Your task to perform on an android device: toggle sleep mode Image 0: 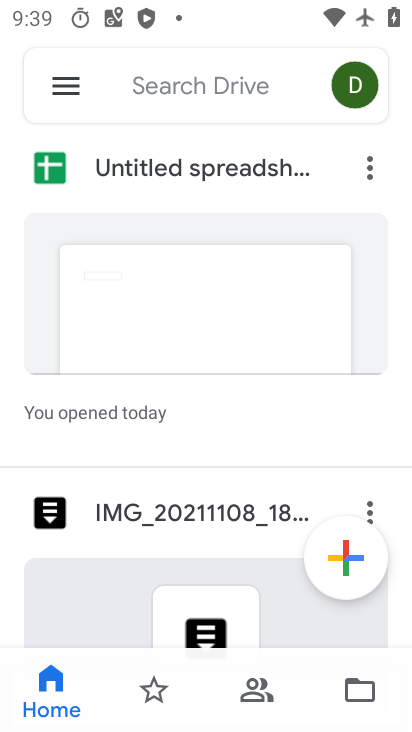
Step 0: press home button
Your task to perform on an android device: toggle sleep mode Image 1: 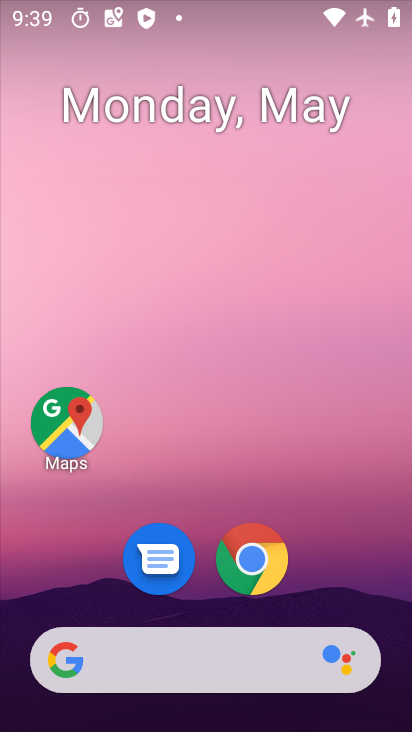
Step 1: drag from (330, 584) to (285, 165)
Your task to perform on an android device: toggle sleep mode Image 2: 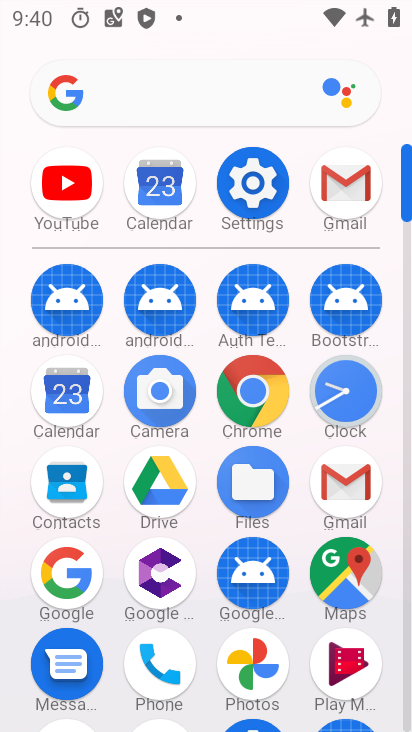
Step 2: click (264, 190)
Your task to perform on an android device: toggle sleep mode Image 3: 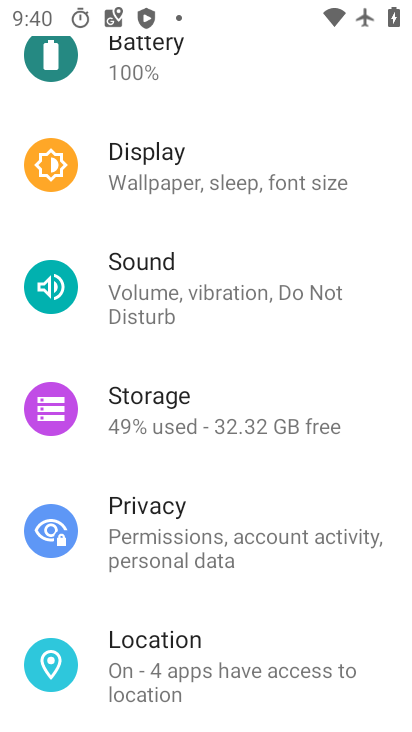
Step 3: click (239, 157)
Your task to perform on an android device: toggle sleep mode Image 4: 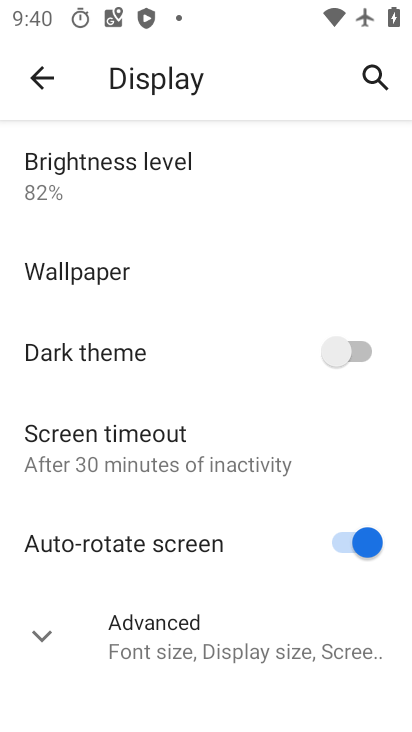
Step 4: click (183, 649)
Your task to perform on an android device: toggle sleep mode Image 5: 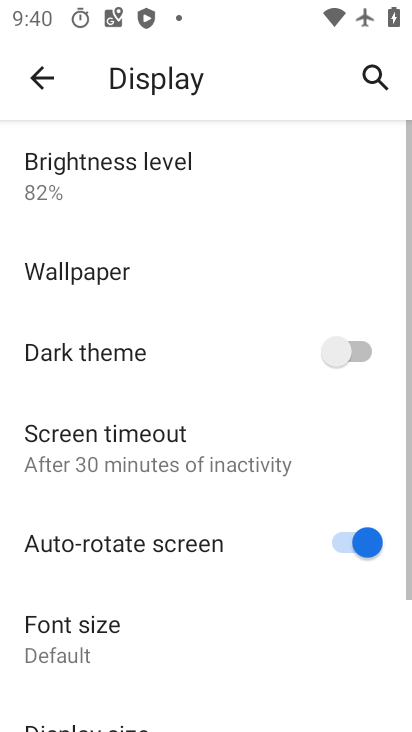
Step 5: drag from (187, 647) to (163, 297)
Your task to perform on an android device: toggle sleep mode Image 6: 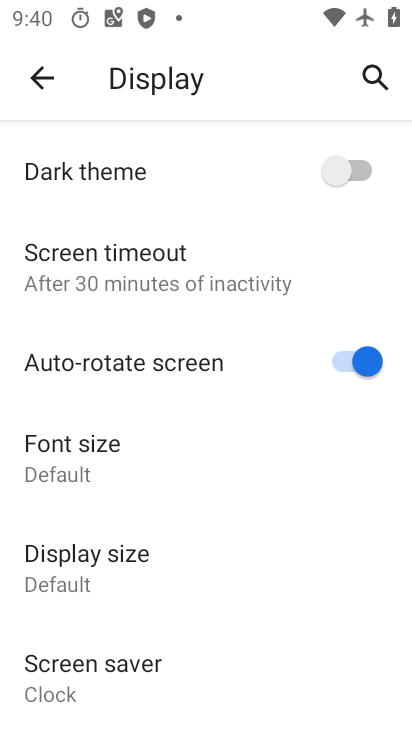
Step 6: drag from (154, 575) to (168, 196)
Your task to perform on an android device: toggle sleep mode Image 7: 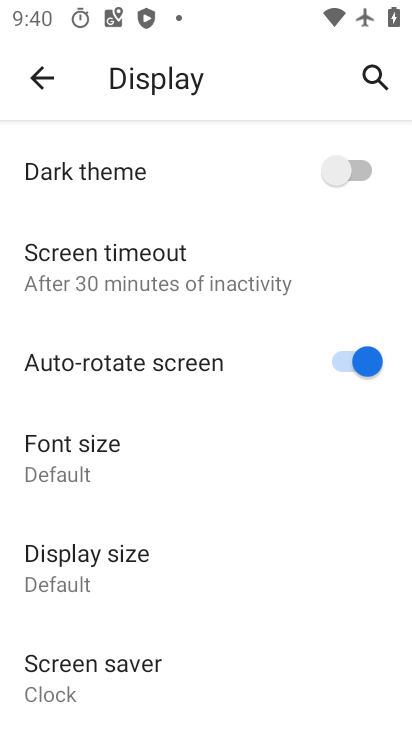
Step 7: drag from (199, 487) to (190, 311)
Your task to perform on an android device: toggle sleep mode Image 8: 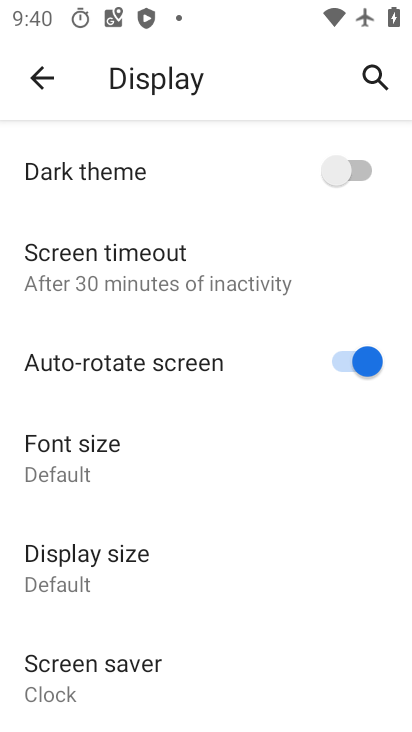
Step 8: click (49, 84)
Your task to perform on an android device: toggle sleep mode Image 9: 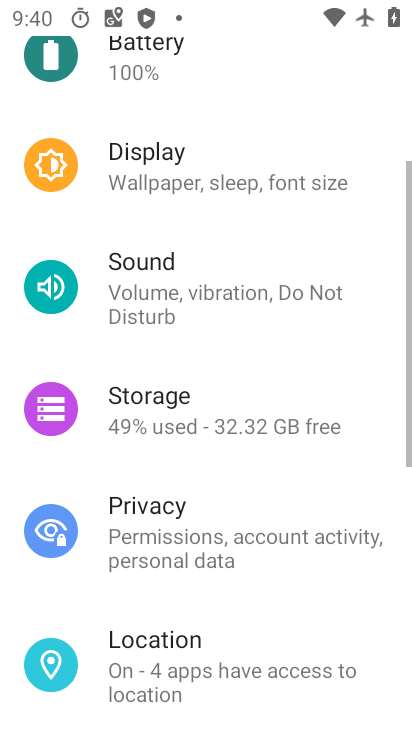
Step 9: task complete